Your task to perform on an android device: set the timer Image 0: 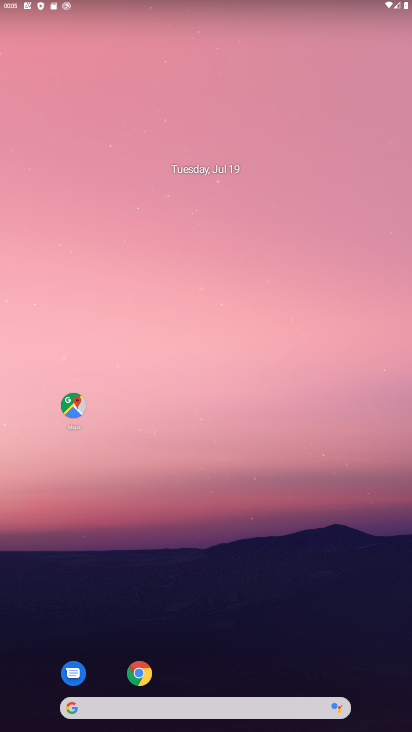
Step 0: drag from (221, 679) to (223, 293)
Your task to perform on an android device: set the timer Image 1: 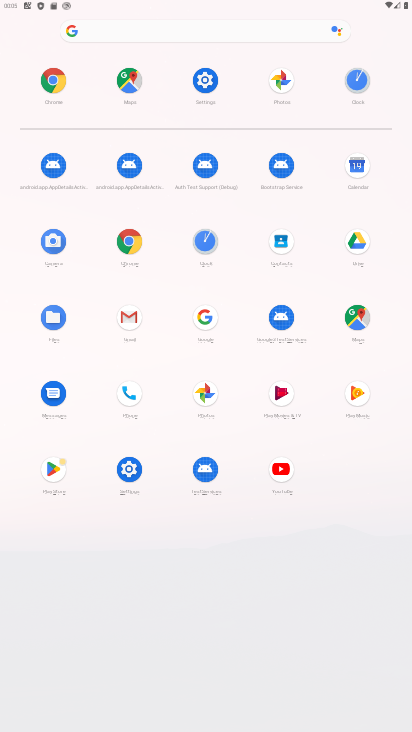
Step 1: click (217, 237)
Your task to perform on an android device: set the timer Image 2: 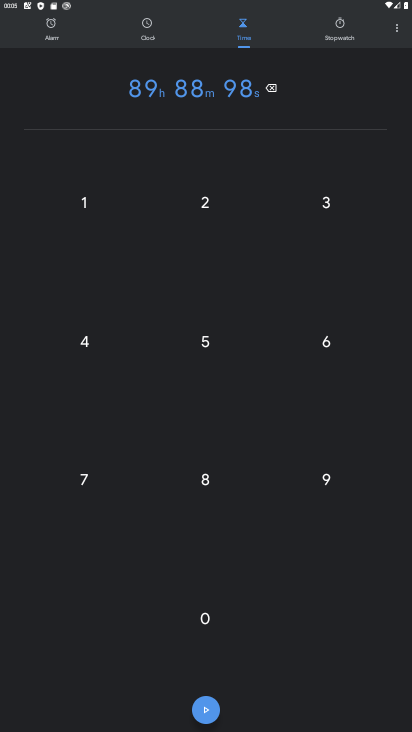
Step 2: click (204, 709)
Your task to perform on an android device: set the timer Image 3: 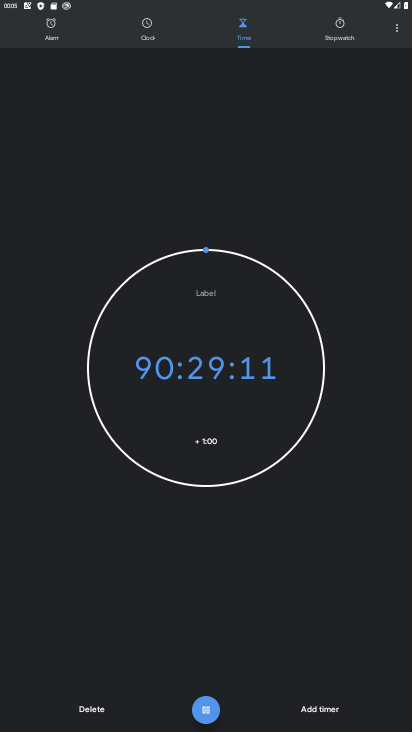
Step 3: task complete